Your task to perform on an android device: turn off wifi Image 0: 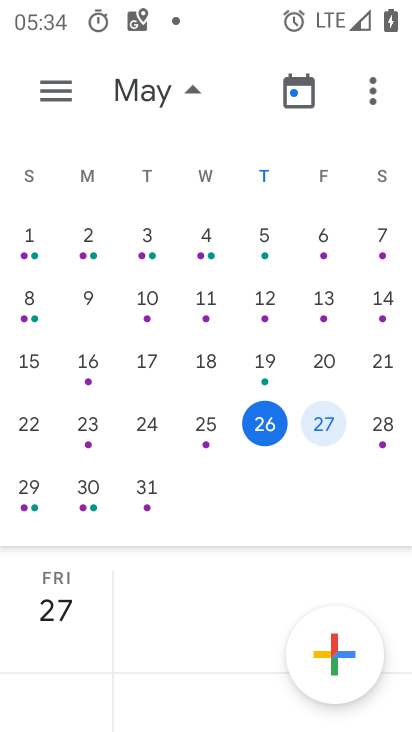
Step 0: press home button
Your task to perform on an android device: turn off wifi Image 1: 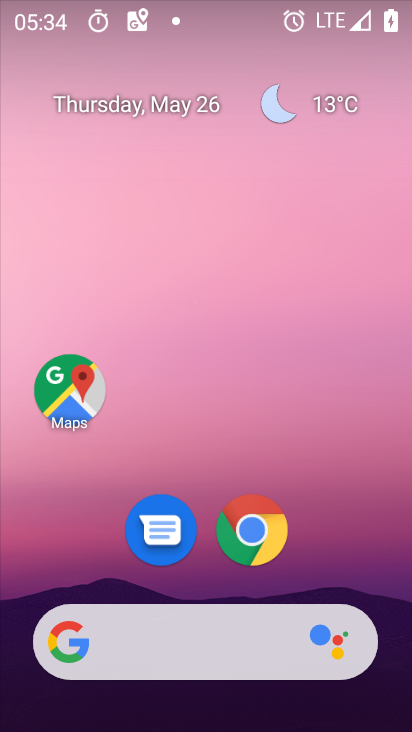
Step 1: drag from (249, 510) to (265, 36)
Your task to perform on an android device: turn off wifi Image 2: 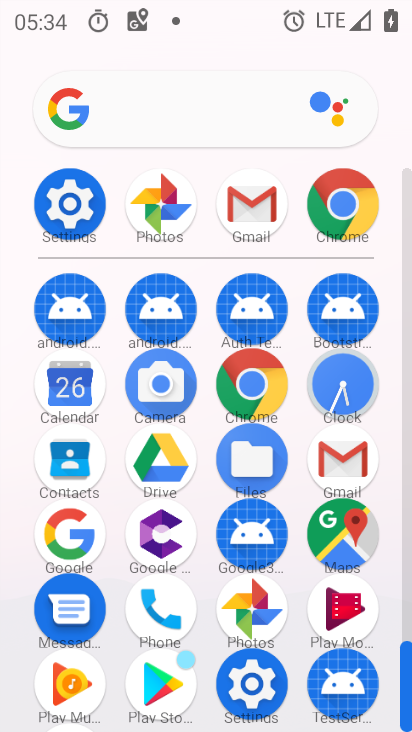
Step 2: click (44, 199)
Your task to perform on an android device: turn off wifi Image 3: 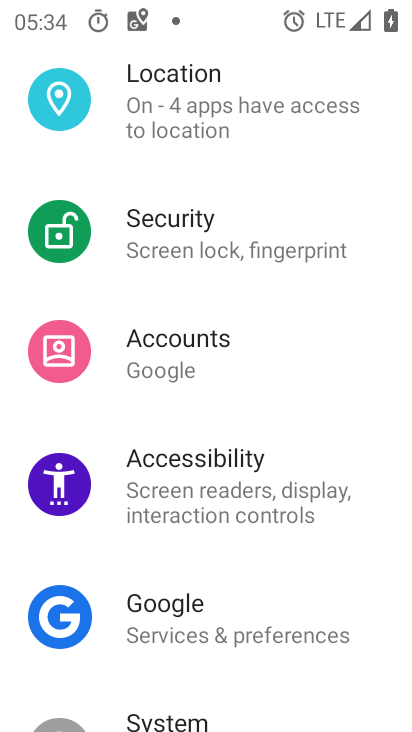
Step 3: drag from (195, 149) to (294, 678)
Your task to perform on an android device: turn off wifi Image 4: 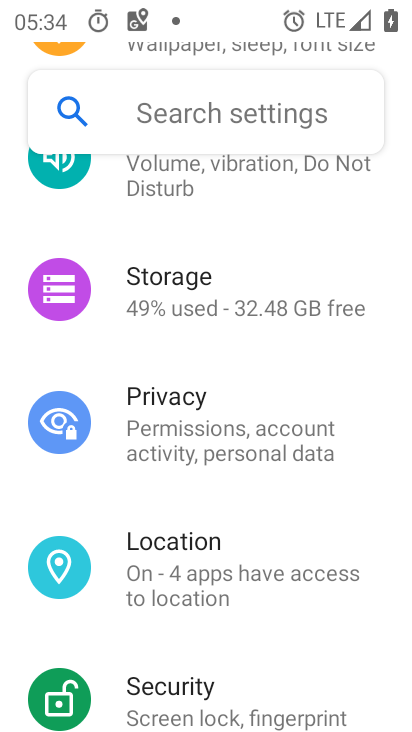
Step 4: drag from (229, 283) to (328, 723)
Your task to perform on an android device: turn off wifi Image 5: 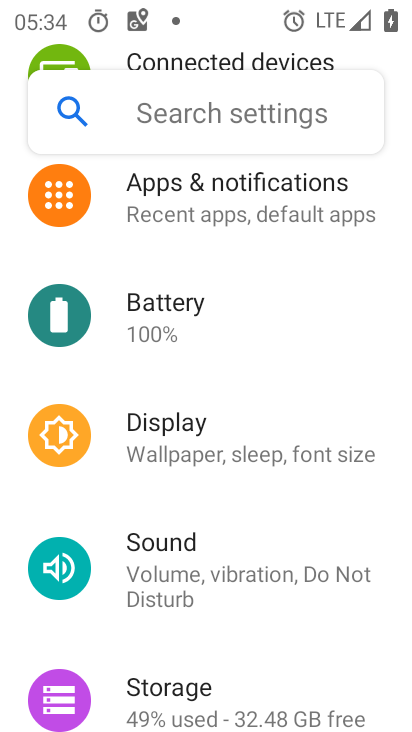
Step 5: drag from (268, 256) to (337, 720)
Your task to perform on an android device: turn off wifi Image 6: 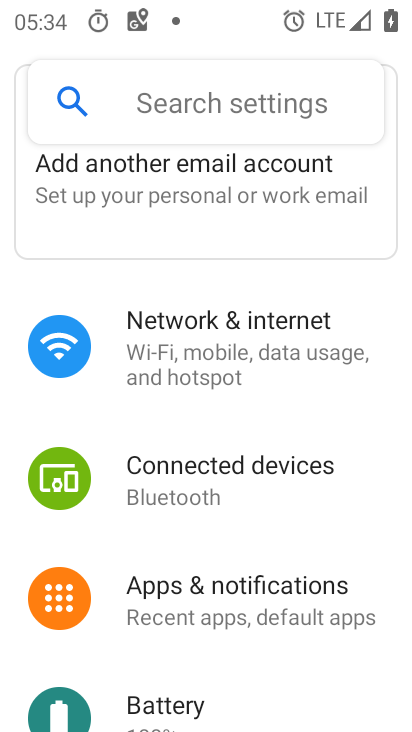
Step 6: click (289, 362)
Your task to perform on an android device: turn off wifi Image 7: 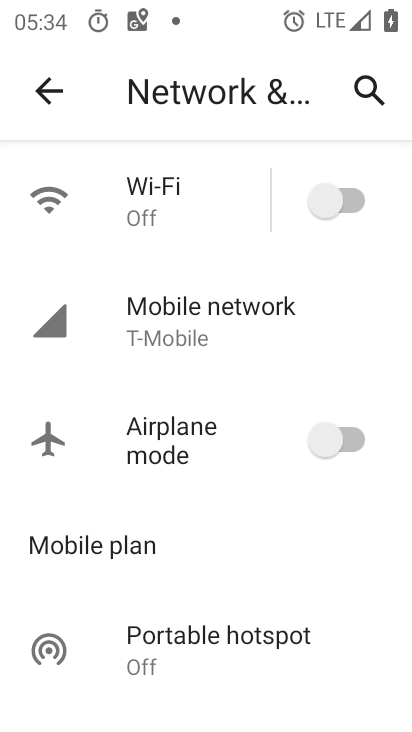
Step 7: task complete